Your task to perform on an android device: toggle translation in the chrome app Image 0: 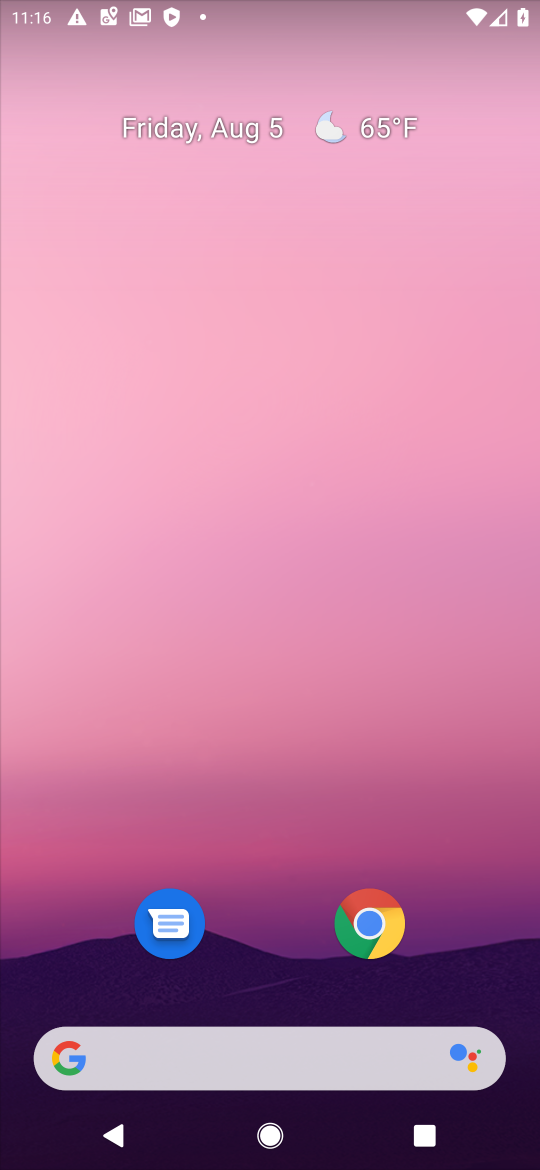
Step 0: drag from (314, 1051) to (279, 66)
Your task to perform on an android device: toggle translation in the chrome app Image 1: 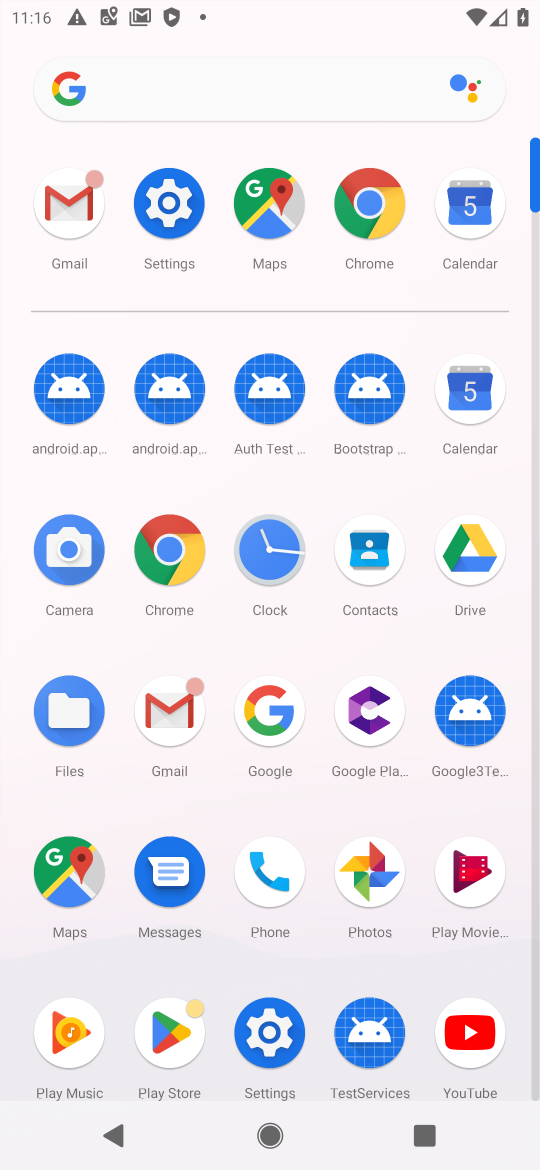
Step 1: click (179, 551)
Your task to perform on an android device: toggle translation in the chrome app Image 2: 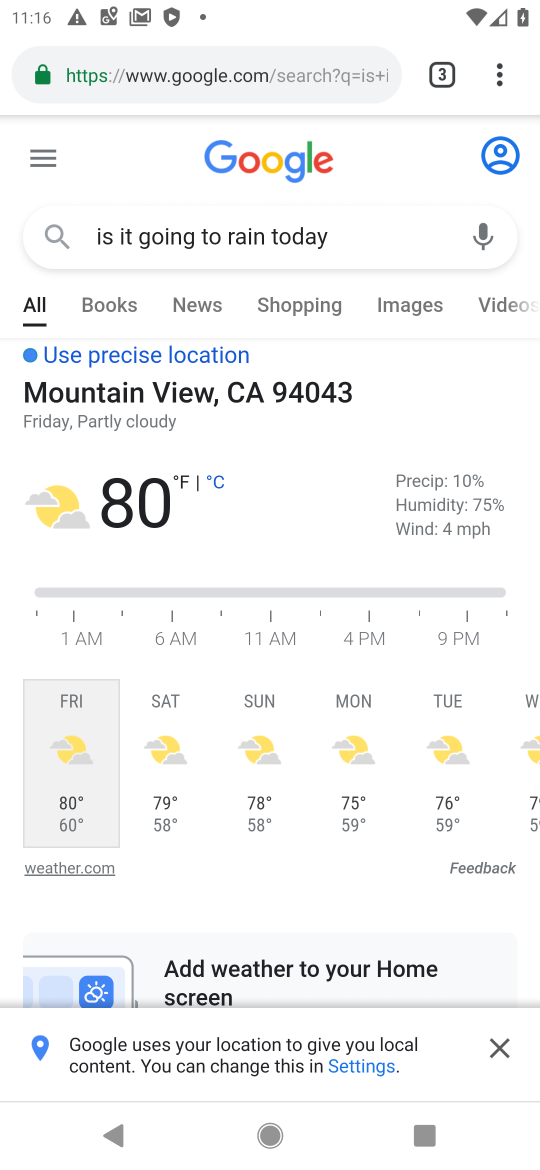
Step 2: drag from (503, 65) to (270, 827)
Your task to perform on an android device: toggle translation in the chrome app Image 3: 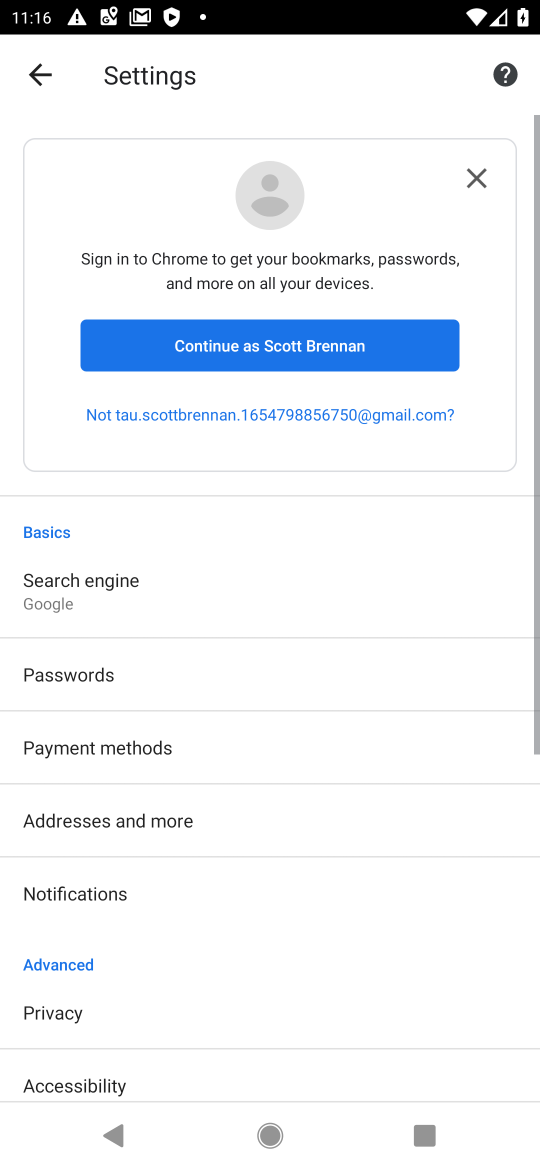
Step 3: drag from (193, 1066) to (256, 558)
Your task to perform on an android device: toggle translation in the chrome app Image 4: 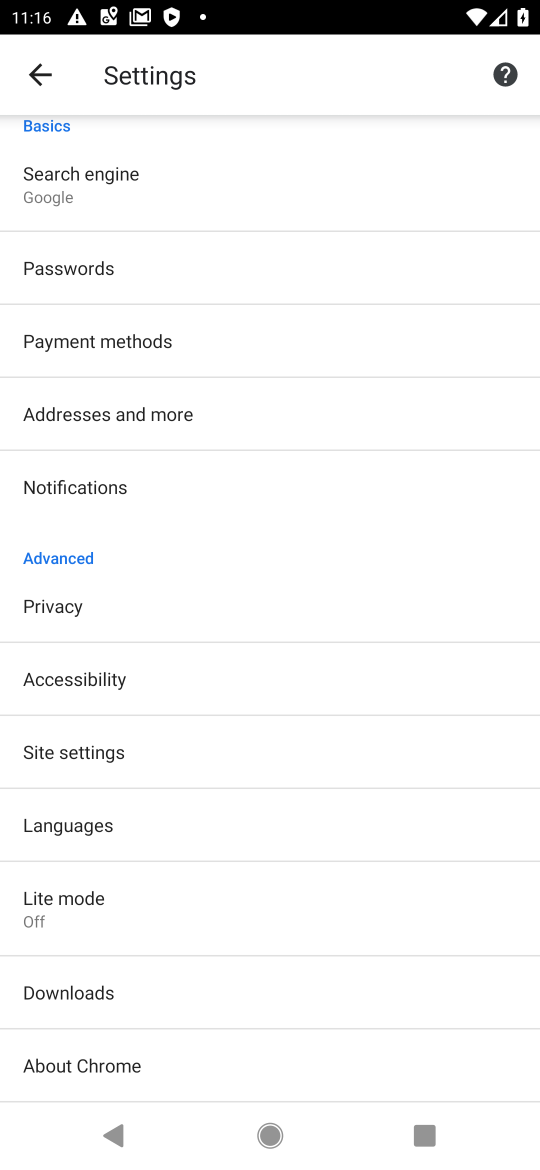
Step 4: click (124, 843)
Your task to perform on an android device: toggle translation in the chrome app Image 5: 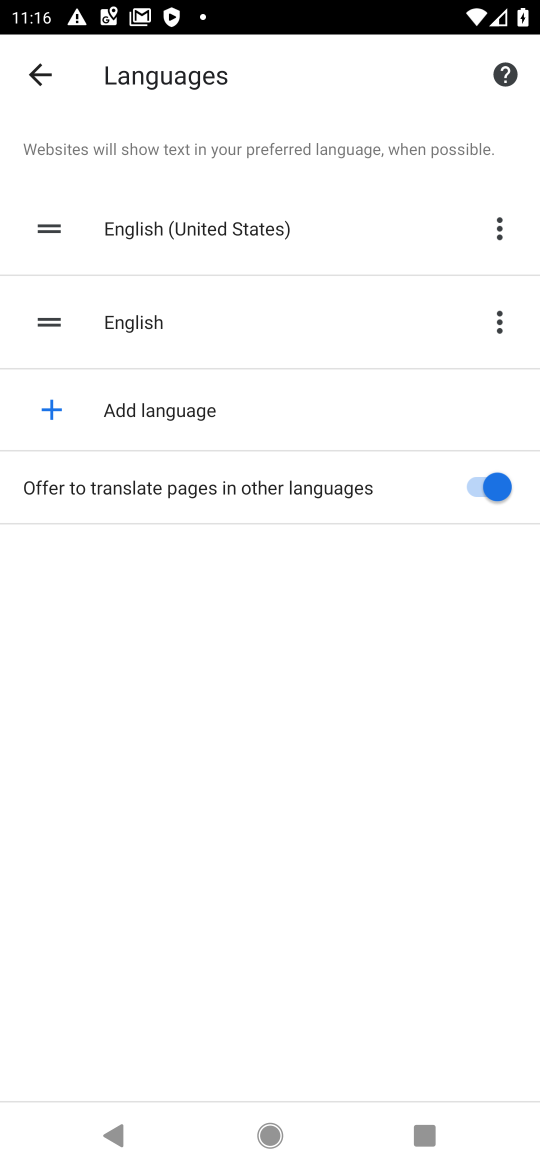
Step 5: click (489, 484)
Your task to perform on an android device: toggle translation in the chrome app Image 6: 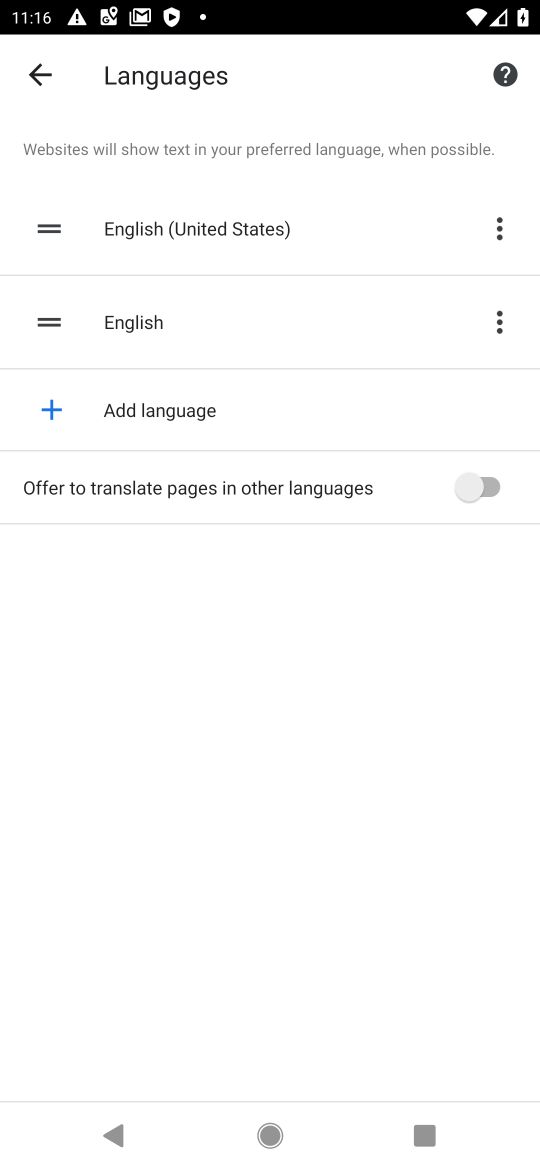
Step 6: task complete